Your task to perform on an android device: uninstall "Nova Launcher" Image 0: 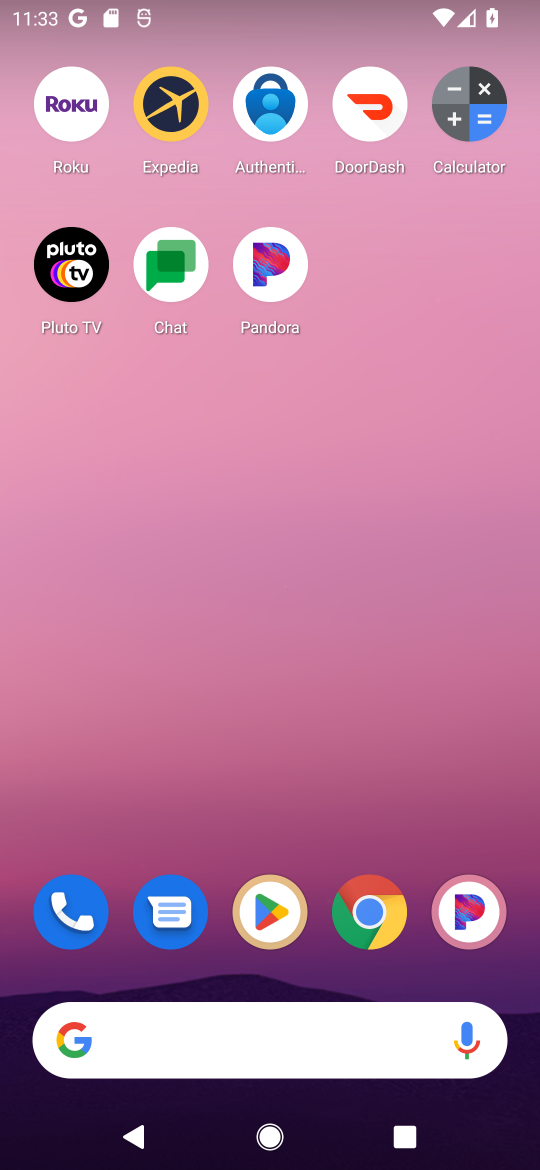
Step 0: click (260, 915)
Your task to perform on an android device: uninstall "Nova Launcher" Image 1: 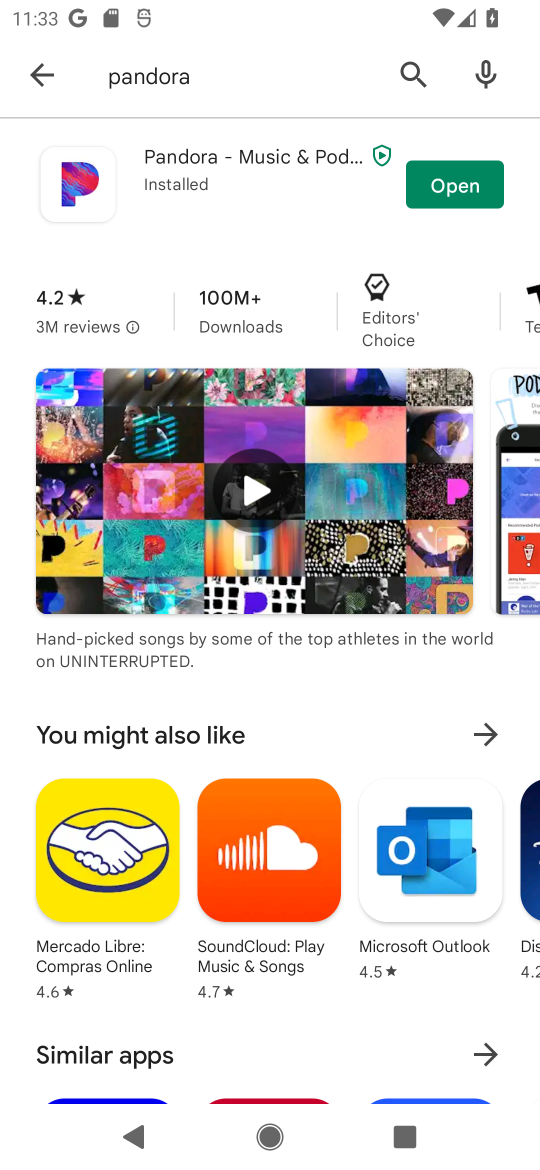
Step 1: click (366, 81)
Your task to perform on an android device: uninstall "Nova Launcher" Image 2: 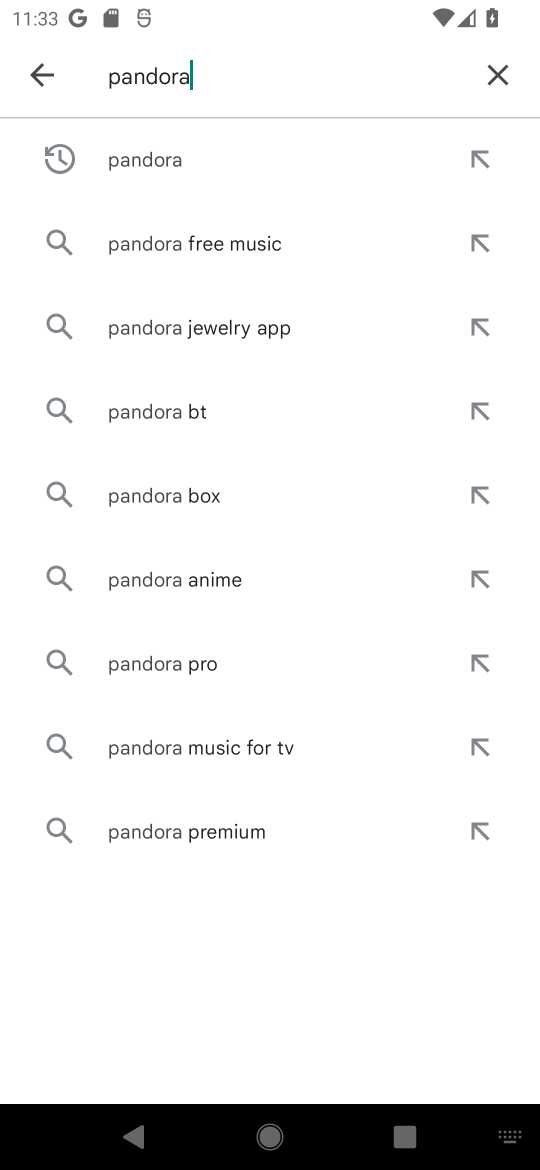
Step 2: click (512, 57)
Your task to perform on an android device: uninstall "Nova Launcher" Image 3: 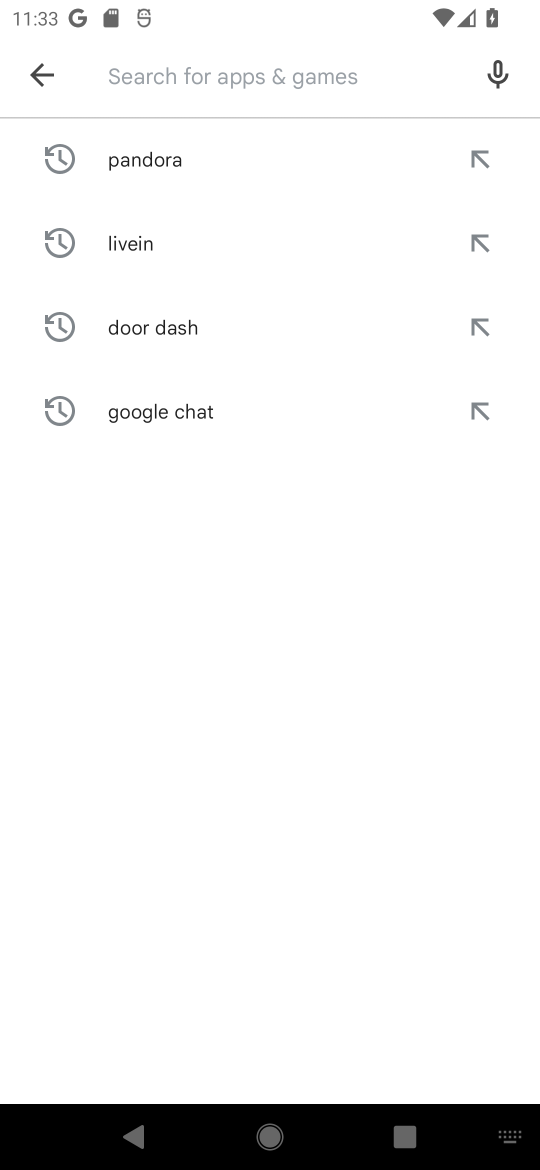
Step 3: click (219, 77)
Your task to perform on an android device: uninstall "Nova Launcher" Image 4: 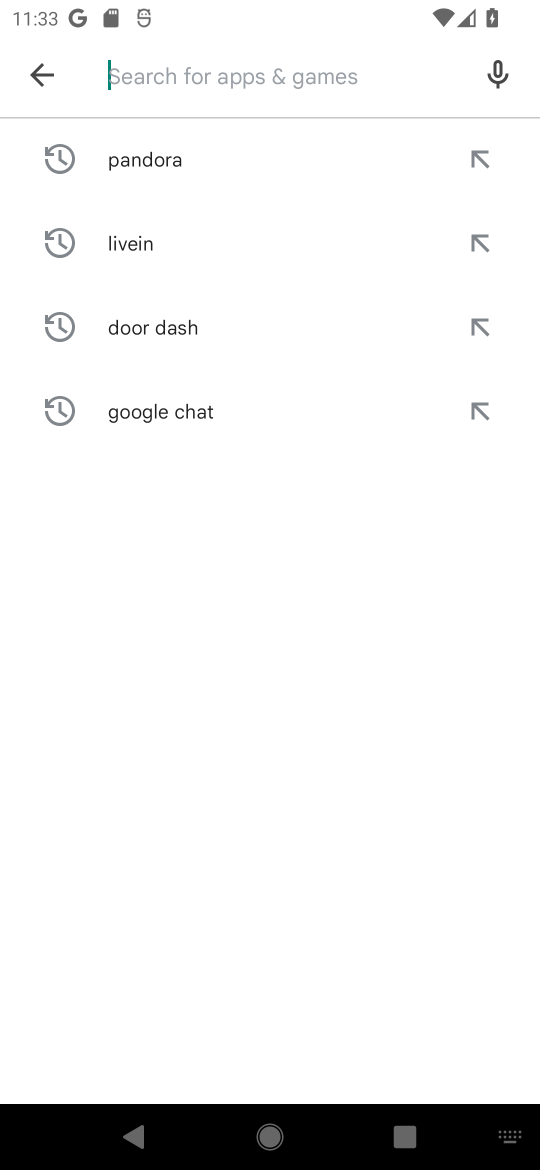
Step 4: type "nova launcher"
Your task to perform on an android device: uninstall "Nova Launcher" Image 5: 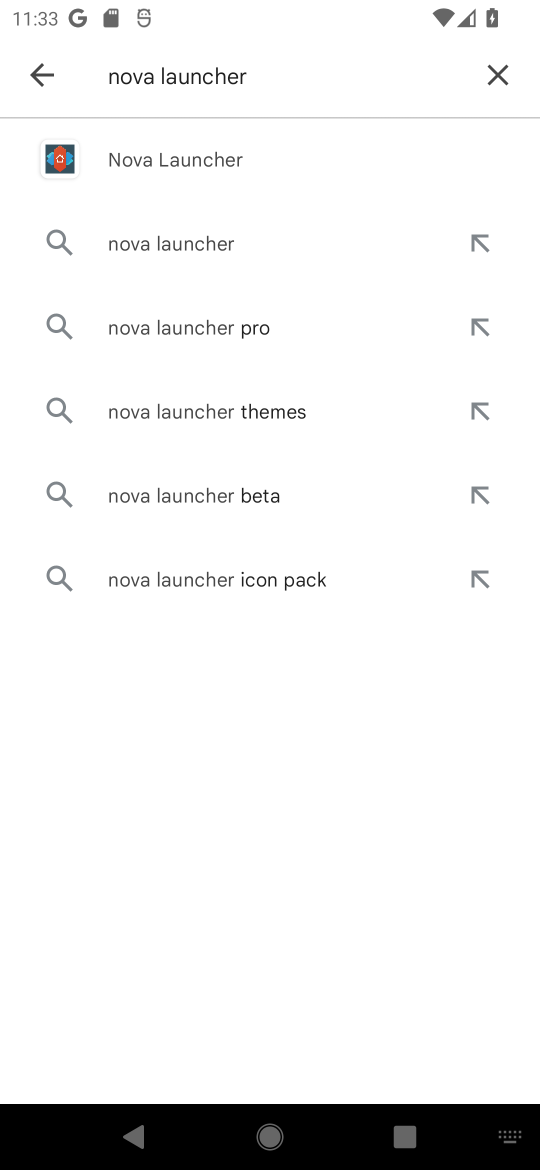
Step 5: click (185, 143)
Your task to perform on an android device: uninstall "Nova Launcher" Image 6: 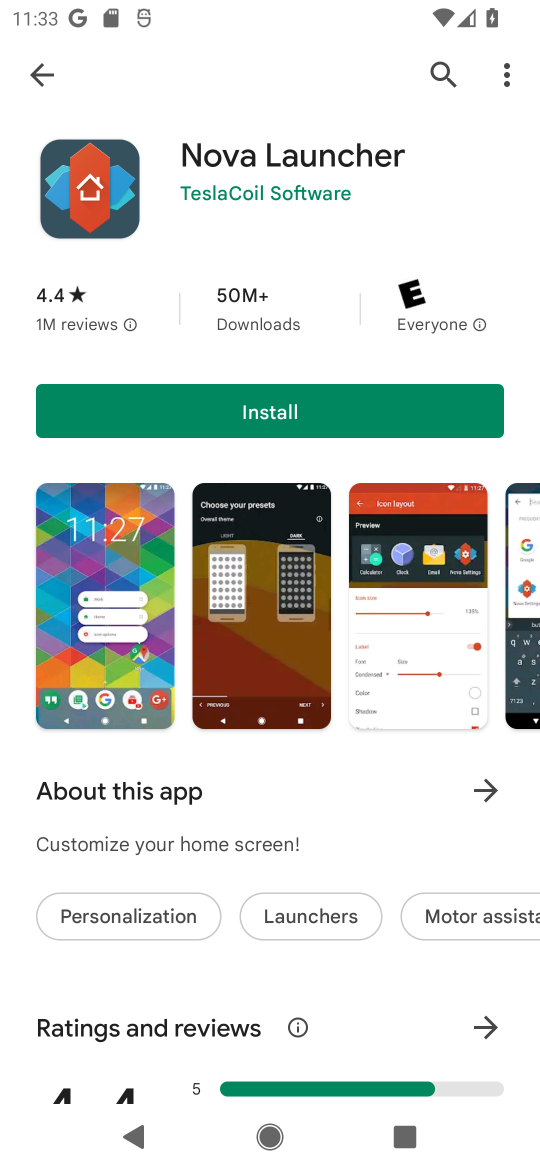
Step 6: task complete